Your task to perform on an android device: add a contact in the contacts app Image 0: 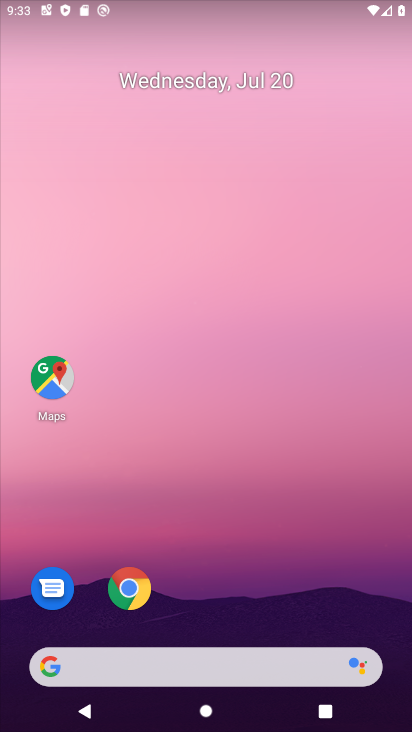
Step 0: press home button
Your task to perform on an android device: add a contact in the contacts app Image 1: 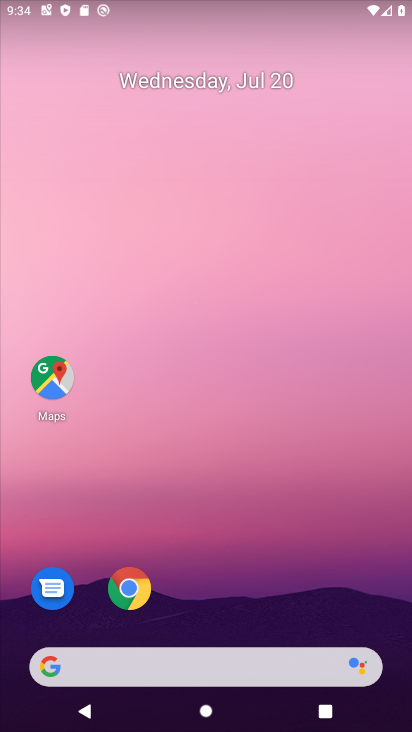
Step 1: press home button
Your task to perform on an android device: add a contact in the contacts app Image 2: 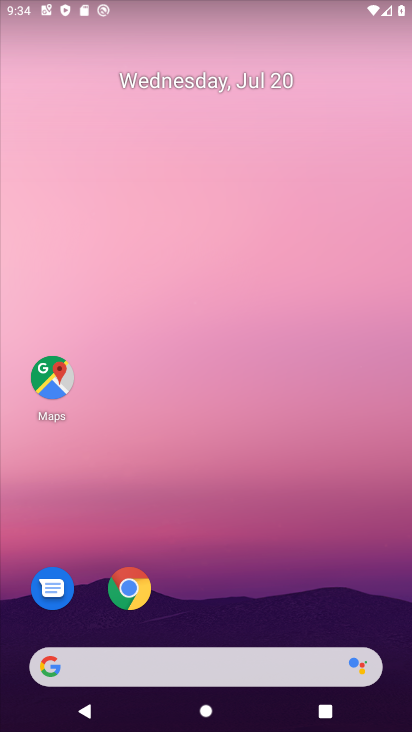
Step 2: drag from (284, 589) to (316, 85)
Your task to perform on an android device: add a contact in the contacts app Image 3: 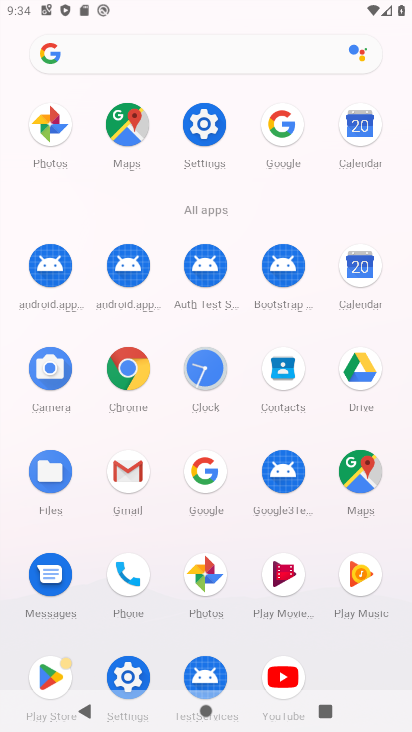
Step 3: click (289, 358)
Your task to perform on an android device: add a contact in the contacts app Image 4: 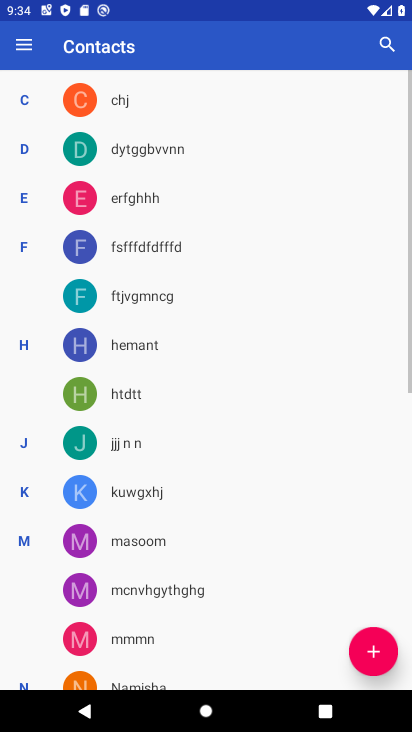
Step 4: click (387, 648)
Your task to perform on an android device: add a contact in the contacts app Image 5: 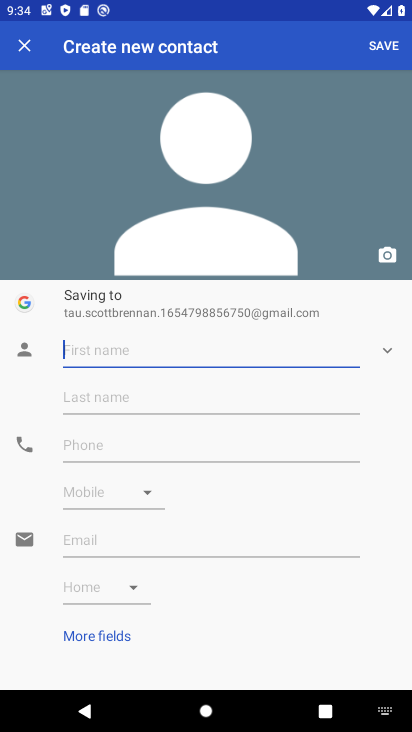
Step 5: click (128, 348)
Your task to perform on an android device: add a contact in the contacts app Image 6: 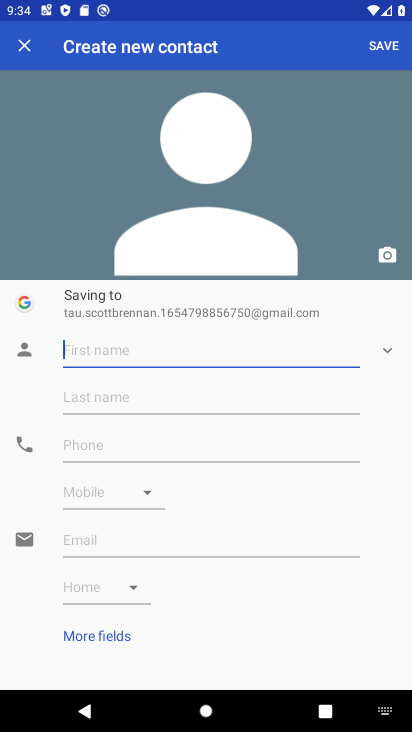
Step 6: type "fhhxhhhhhhghghg"
Your task to perform on an android device: add a contact in the contacts app Image 7: 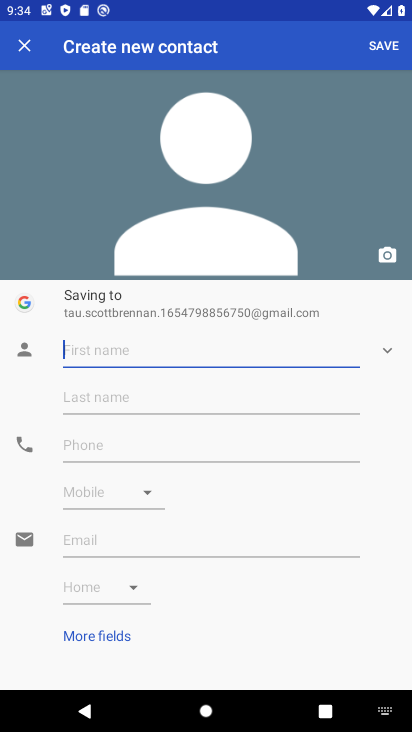
Step 7: click (145, 350)
Your task to perform on an android device: add a contact in the contacts app Image 8: 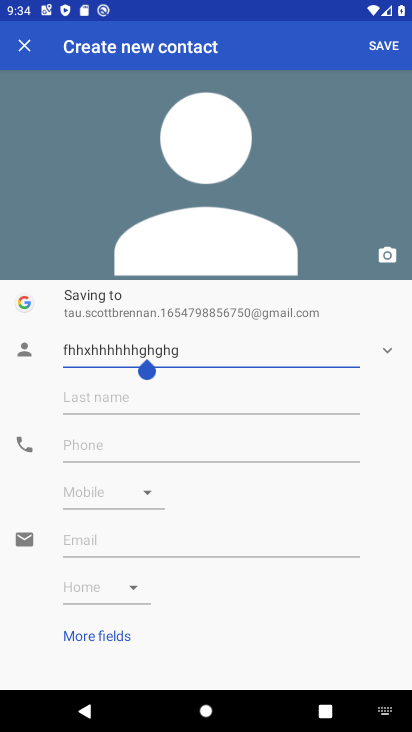
Step 8: click (171, 445)
Your task to perform on an android device: add a contact in the contacts app Image 9: 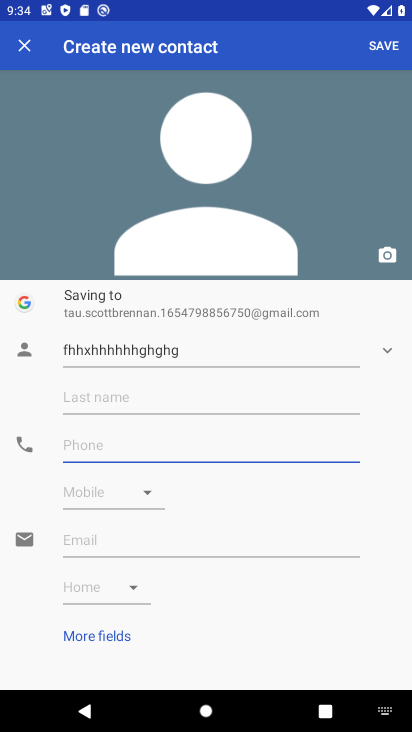
Step 9: type "443333333333333333333333333"
Your task to perform on an android device: add a contact in the contacts app Image 10: 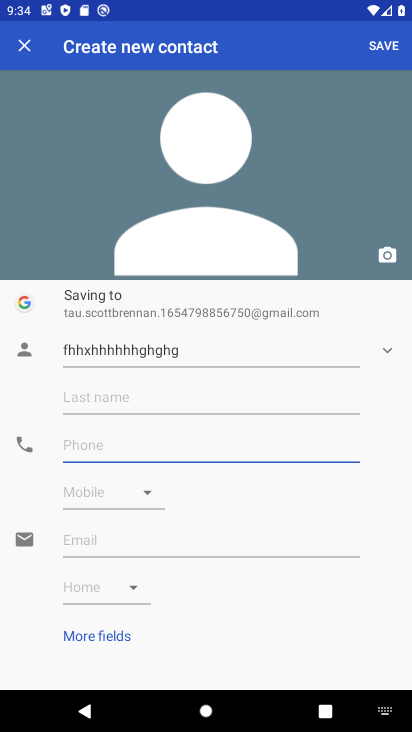
Step 10: click (136, 463)
Your task to perform on an android device: add a contact in the contacts app Image 11: 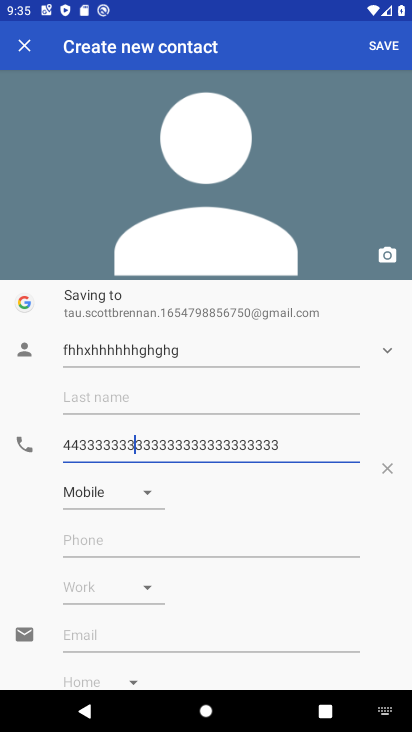
Step 11: click (385, 38)
Your task to perform on an android device: add a contact in the contacts app Image 12: 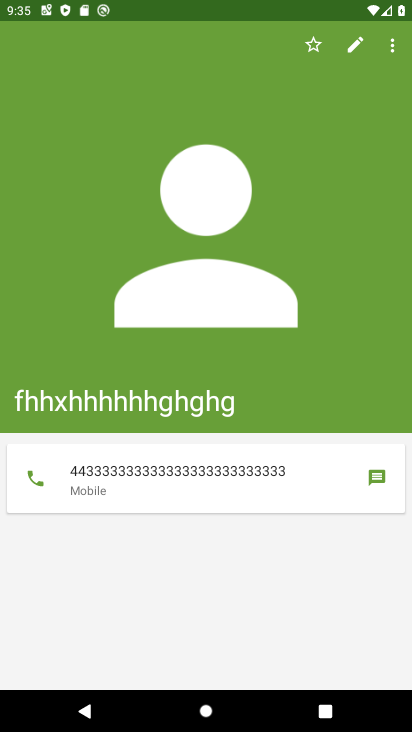
Step 12: task complete